Your task to perform on an android device: open device folders in google photos Image 0: 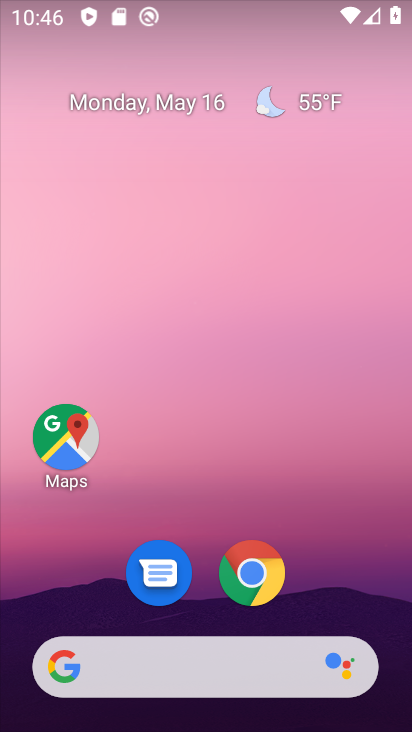
Step 0: drag from (230, 554) to (246, 373)
Your task to perform on an android device: open device folders in google photos Image 1: 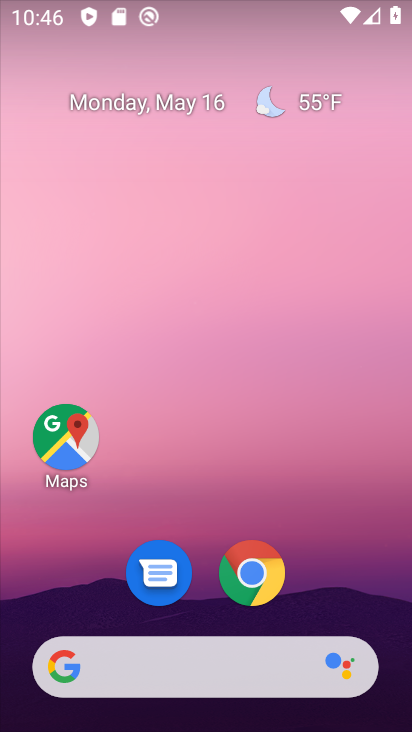
Step 1: drag from (185, 623) to (240, 165)
Your task to perform on an android device: open device folders in google photos Image 2: 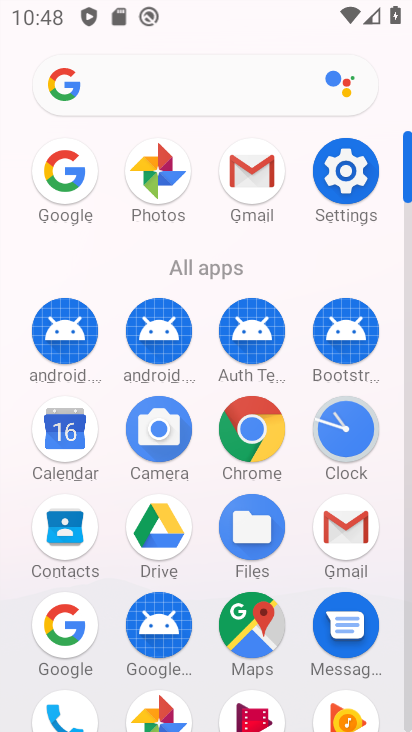
Step 2: click (170, 706)
Your task to perform on an android device: open device folders in google photos Image 3: 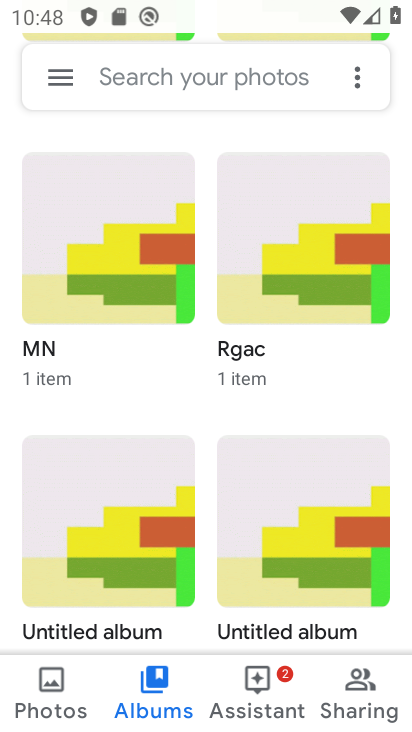
Step 3: click (58, 77)
Your task to perform on an android device: open device folders in google photos Image 4: 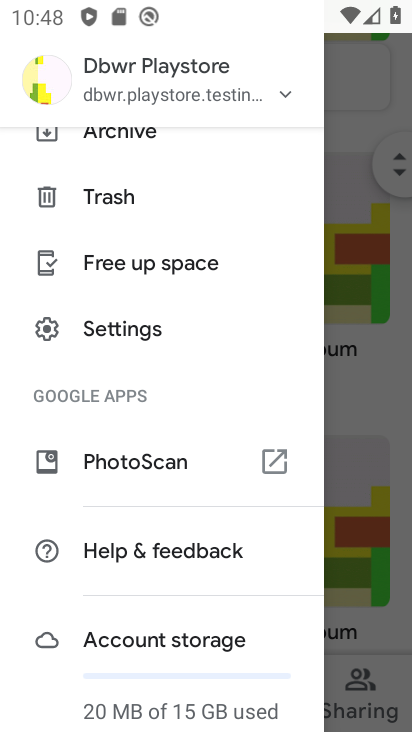
Step 4: drag from (139, 170) to (166, 549)
Your task to perform on an android device: open device folders in google photos Image 5: 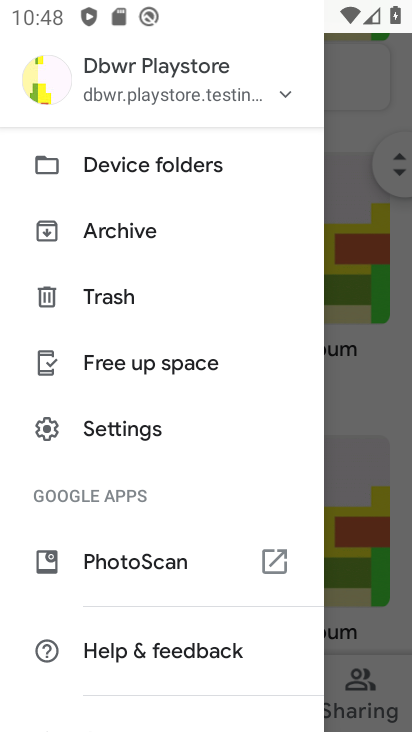
Step 5: click (152, 168)
Your task to perform on an android device: open device folders in google photos Image 6: 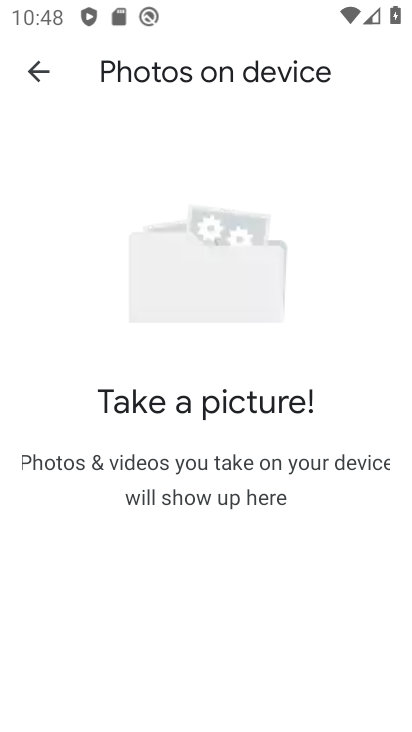
Step 6: task complete